Your task to perform on an android device: Search for Mexican restaurants on Maps Image 0: 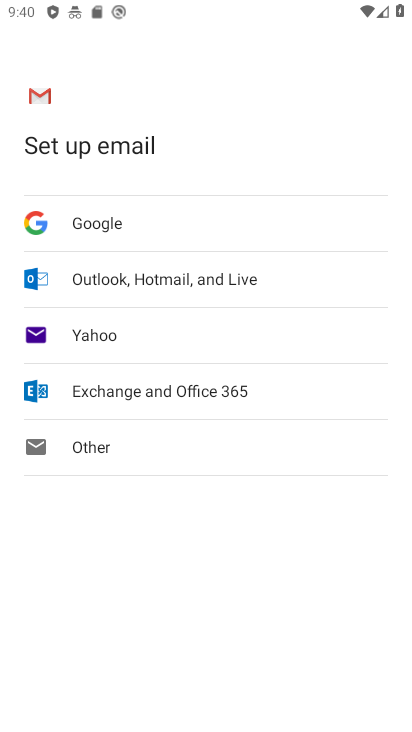
Step 0: press home button
Your task to perform on an android device: Search for Mexican restaurants on Maps Image 1: 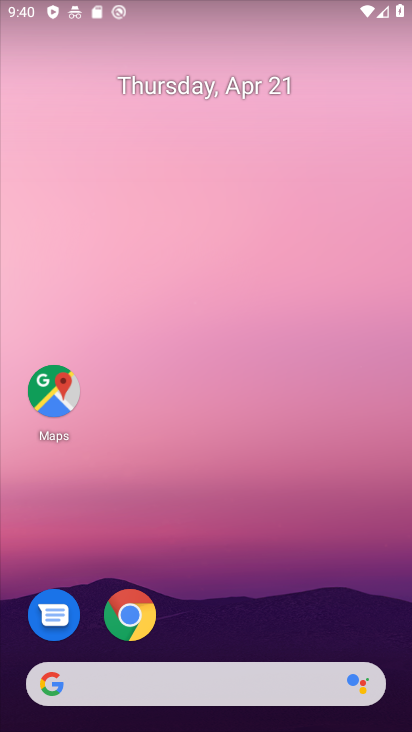
Step 1: drag from (201, 722) to (199, 265)
Your task to perform on an android device: Search for Mexican restaurants on Maps Image 2: 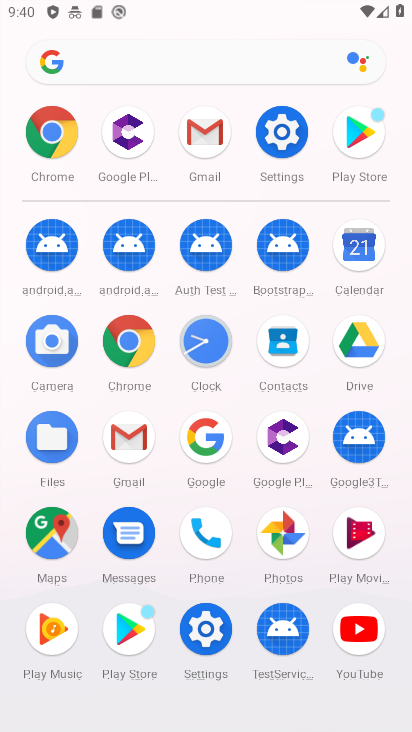
Step 2: click (54, 531)
Your task to perform on an android device: Search for Mexican restaurants on Maps Image 3: 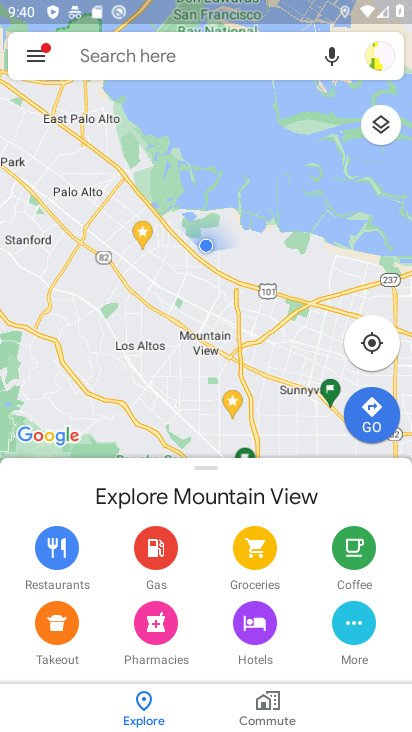
Step 3: click (182, 59)
Your task to perform on an android device: Search for Mexican restaurants on Maps Image 4: 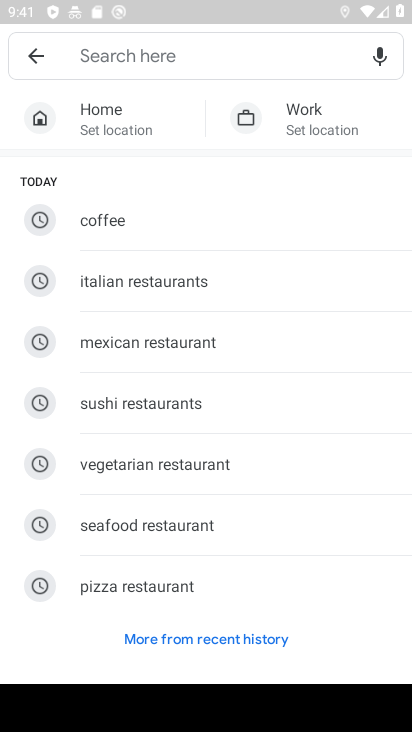
Step 4: type "Mexican restaurants"
Your task to perform on an android device: Search for Mexican restaurants on Maps Image 5: 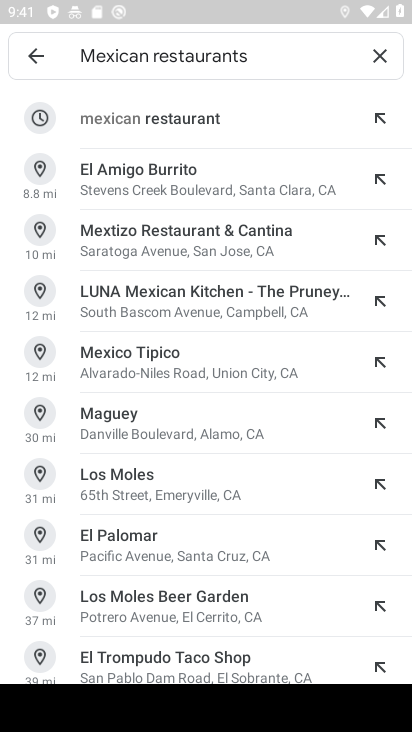
Step 5: click (201, 111)
Your task to perform on an android device: Search for Mexican restaurants on Maps Image 6: 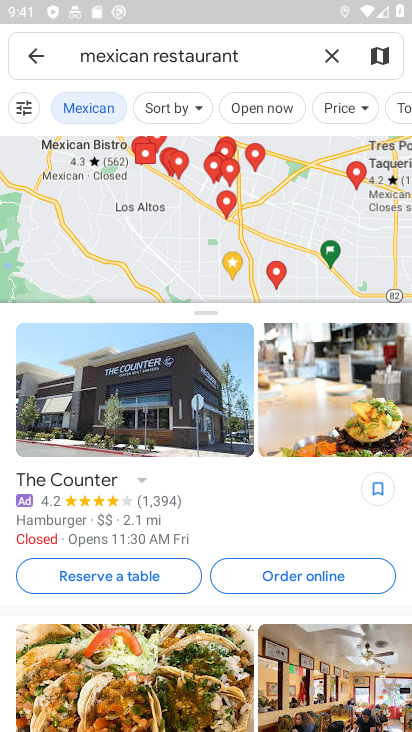
Step 6: task complete